Your task to perform on an android device: Set the phone to "Do not disturb". Image 0: 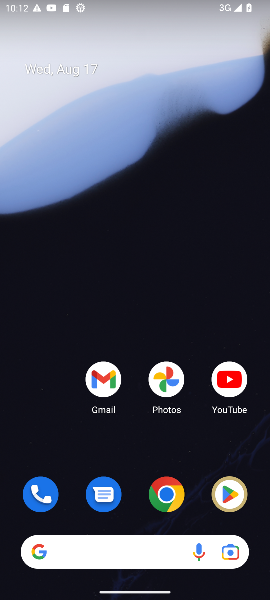
Step 0: drag from (132, 450) to (118, 80)
Your task to perform on an android device: Set the phone to "Do not disturb". Image 1: 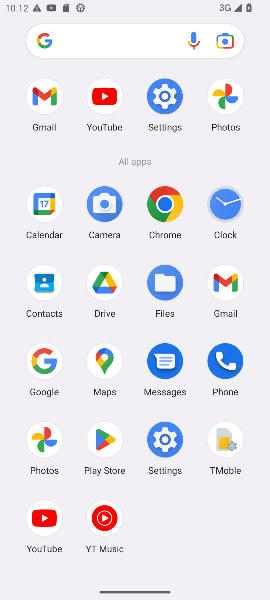
Step 1: drag from (120, 1) to (138, 379)
Your task to perform on an android device: Set the phone to "Do not disturb". Image 2: 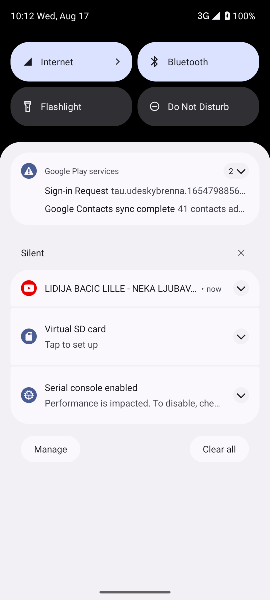
Step 2: click (178, 103)
Your task to perform on an android device: Set the phone to "Do not disturb". Image 3: 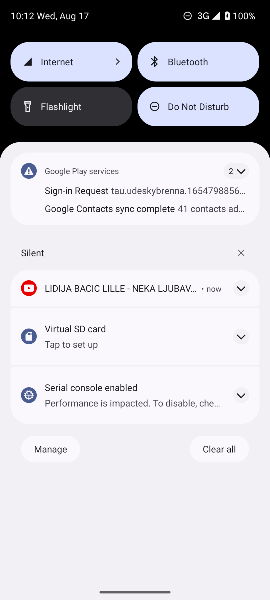
Step 3: task complete